Your task to perform on an android device: Show me the alarms in the clock app Image 0: 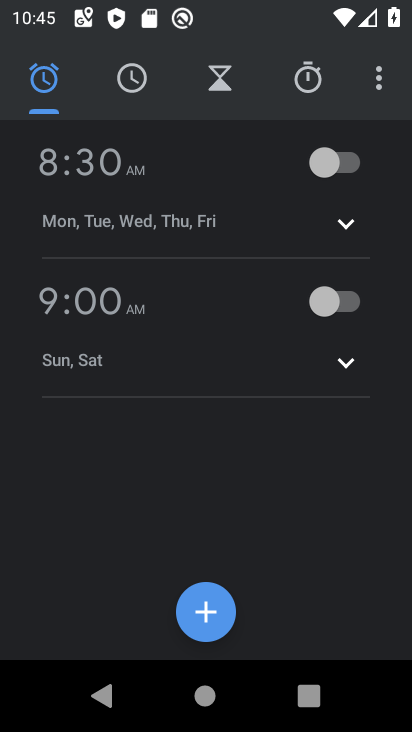
Step 0: press home button
Your task to perform on an android device: Show me the alarms in the clock app Image 1: 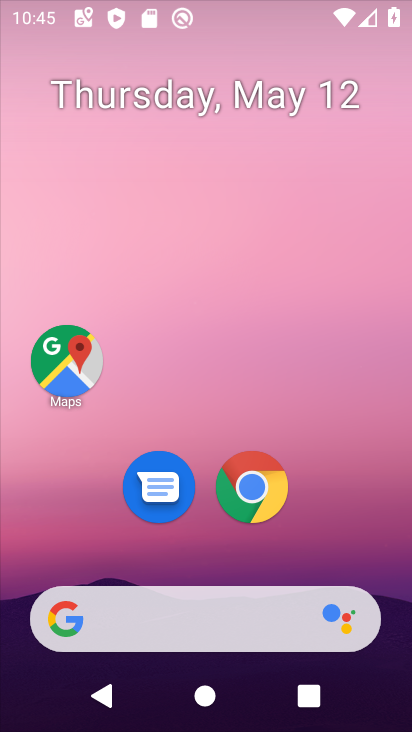
Step 1: drag from (6, 590) to (294, 150)
Your task to perform on an android device: Show me the alarms in the clock app Image 2: 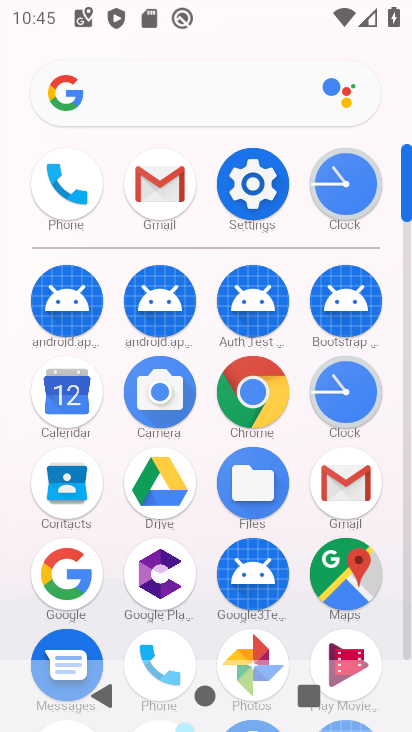
Step 2: click (346, 404)
Your task to perform on an android device: Show me the alarms in the clock app Image 3: 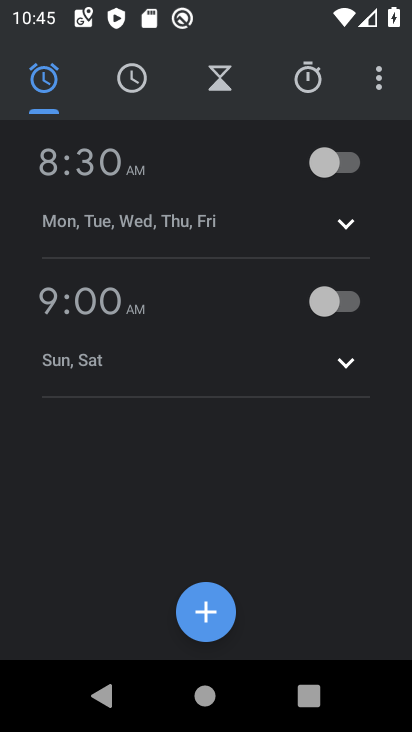
Step 3: click (59, 73)
Your task to perform on an android device: Show me the alarms in the clock app Image 4: 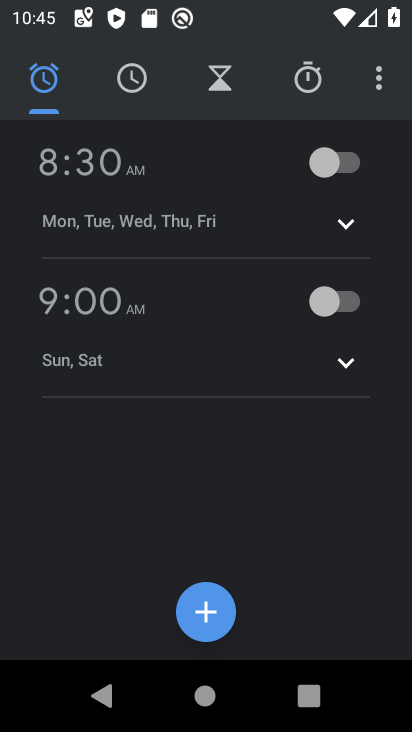
Step 4: task complete